Your task to perform on an android device: turn on data saver in the chrome app Image 0: 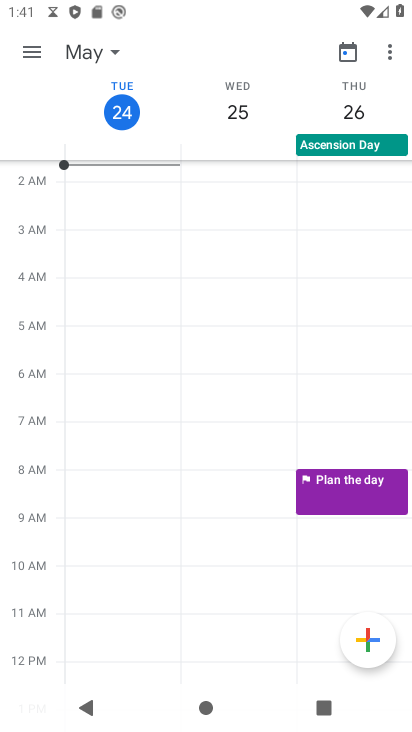
Step 0: press home button
Your task to perform on an android device: turn on data saver in the chrome app Image 1: 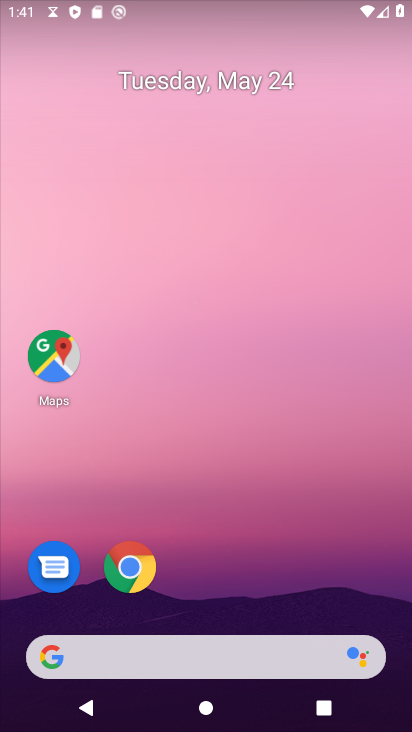
Step 1: click (112, 564)
Your task to perform on an android device: turn on data saver in the chrome app Image 2: 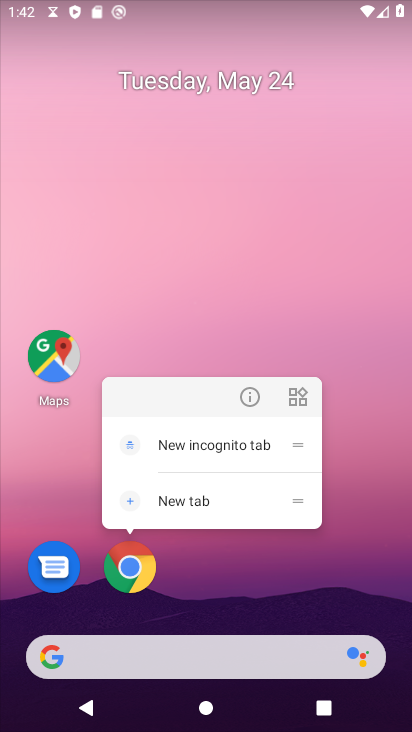
Step 2: click (121, 564)
Your task to perform on an android device: turn on data saver in the chrome app Image 3: 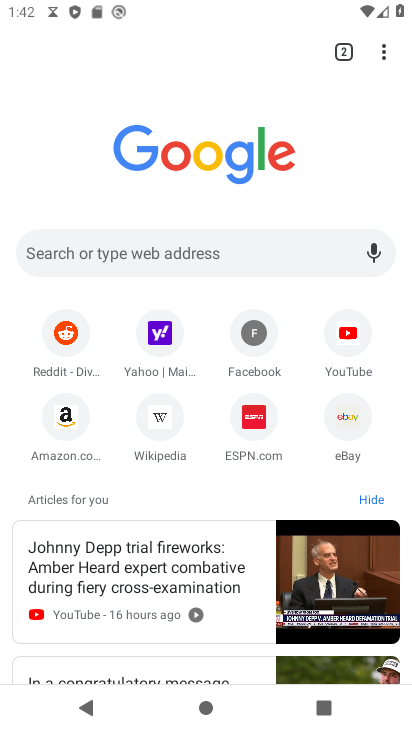
Step 3: click (388, 48)
Your task to perform on an android device: turn on data saver in the chrome app Image 4: 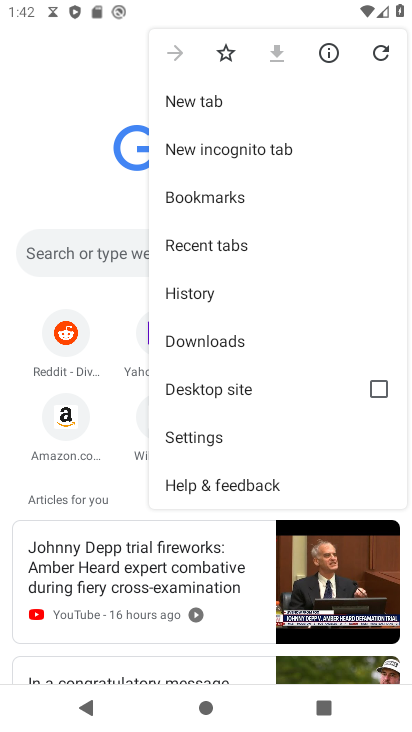
Step 4: click (193, 438)
Your task to perform on an android device: turn on data saver in the chrome app Image 5: 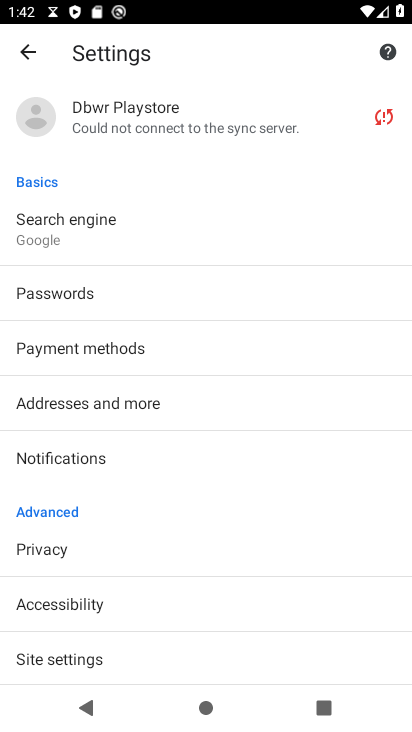
Step 5: drag from (117, 537) to (159, 320)
Your task to perform on an android device: turn on data saver in the chrome app Image 6: 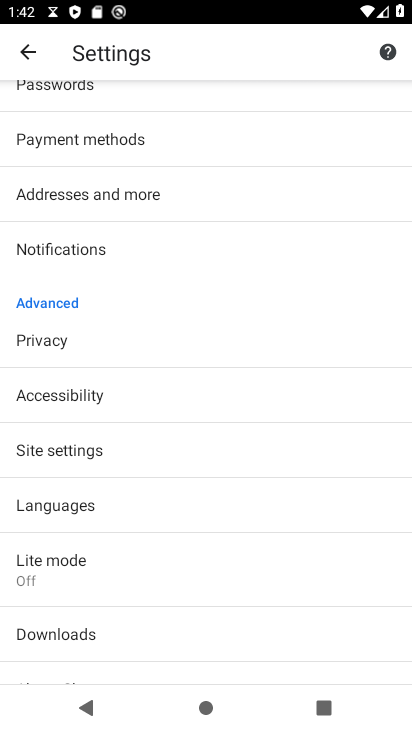
Step 6: click (66, 548)
Your task to perform on an android device: turn on data saver in the chrome app Image 7: 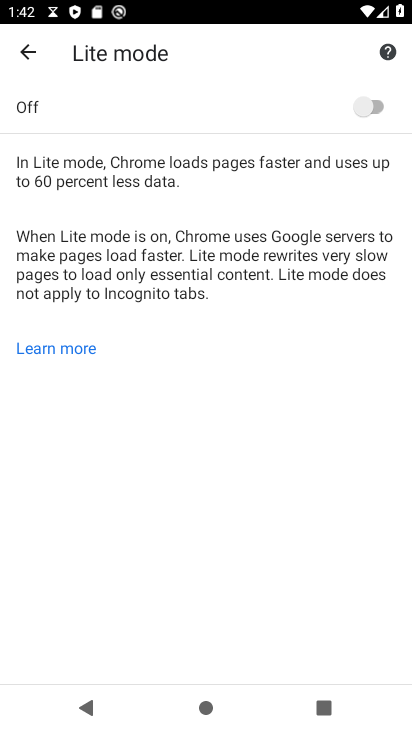
Step 7: click (379, 100)
Your task to perform on an android device: turn on data saver in the chrome app Image 8: 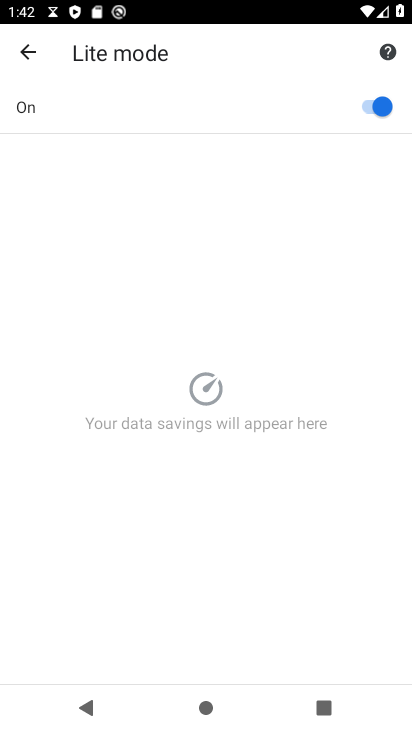
Step 8: task complete